Your task to perform on an android device: change your default location settings in chrome Image 0: 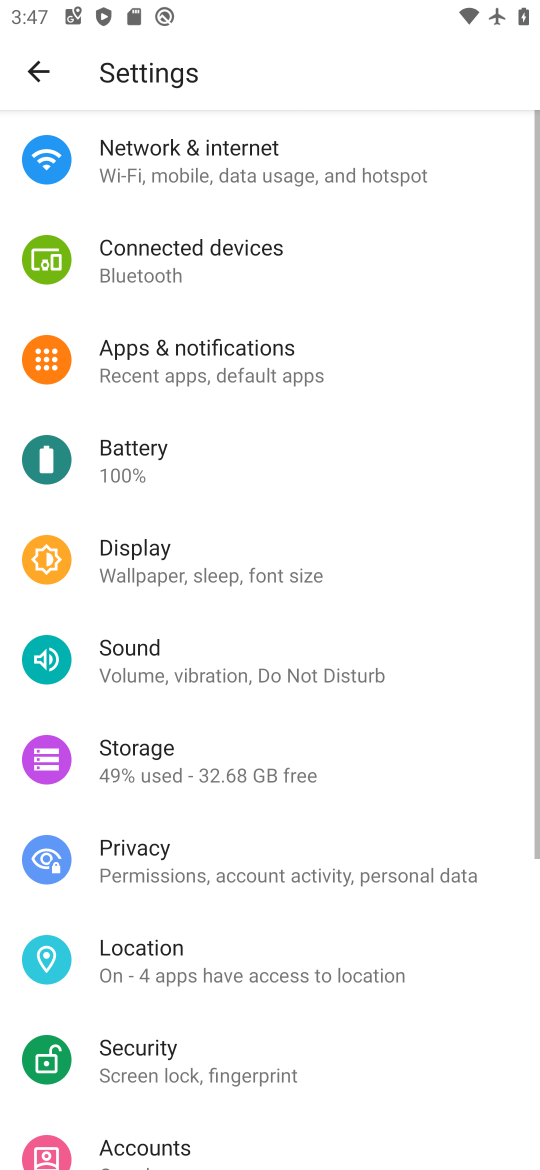
Step 0: press home button
Your task to perform on an android device: change your default location settings in chrome Image 1: 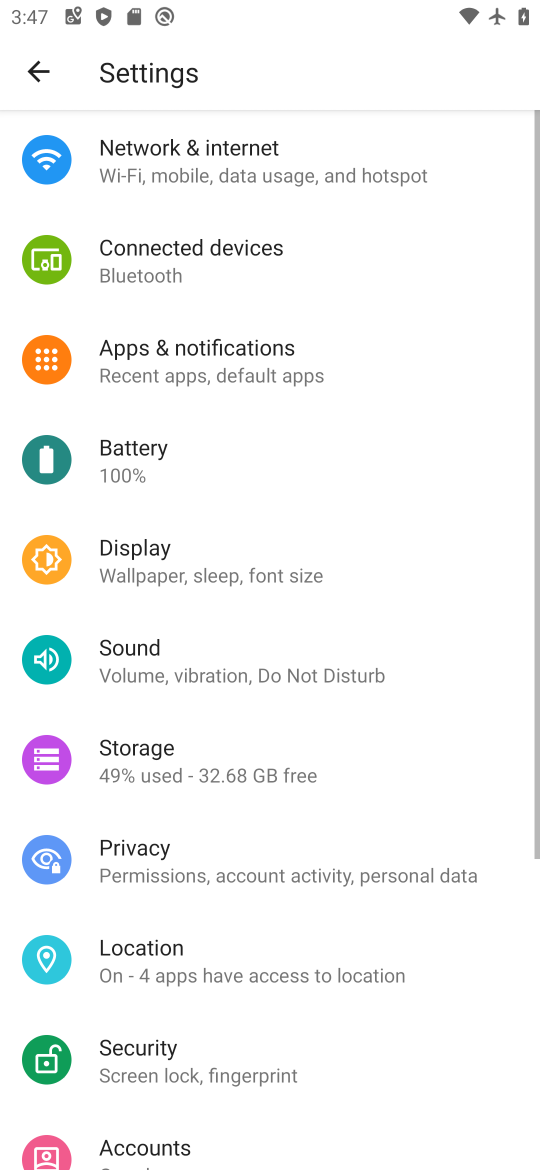
Step 1: press home button
Your task to perform on an android device: change your default location settings in chrome Image 2: 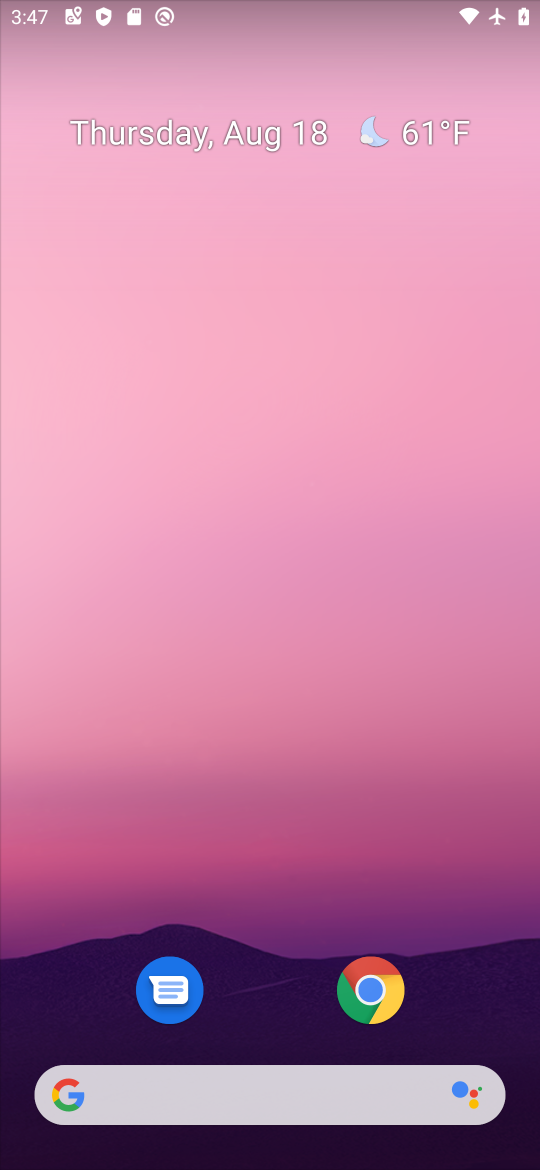
Step 2: drag from (268, 962) to (343, 59)
Your task to perform on an android device: change your default location settings in chrome Image 3: 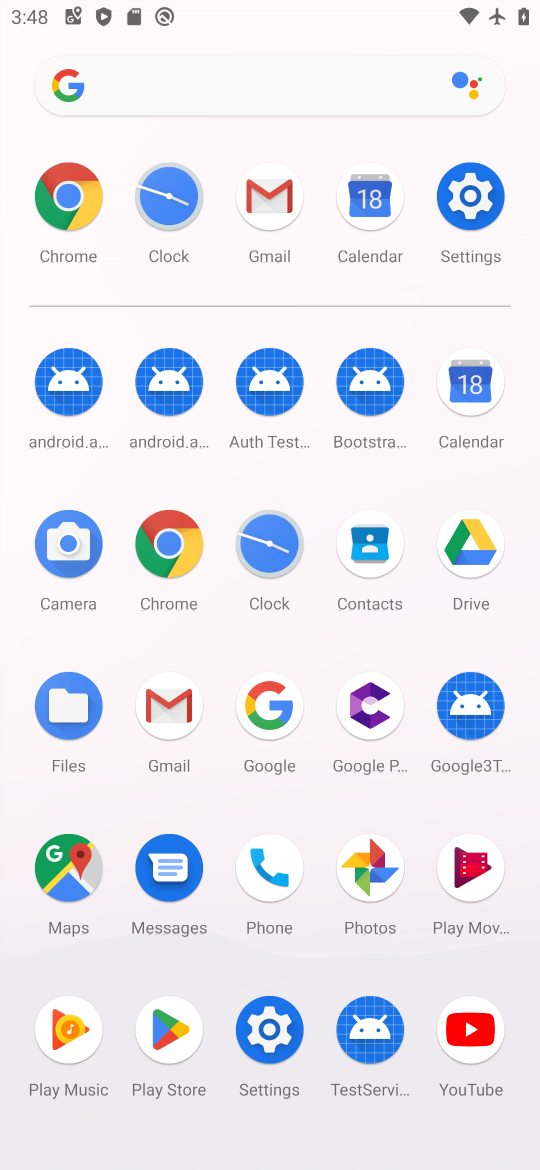
Step 3: click (168, 544)
Your task to perform on an android device: change your default location settings in chrome Image 4: 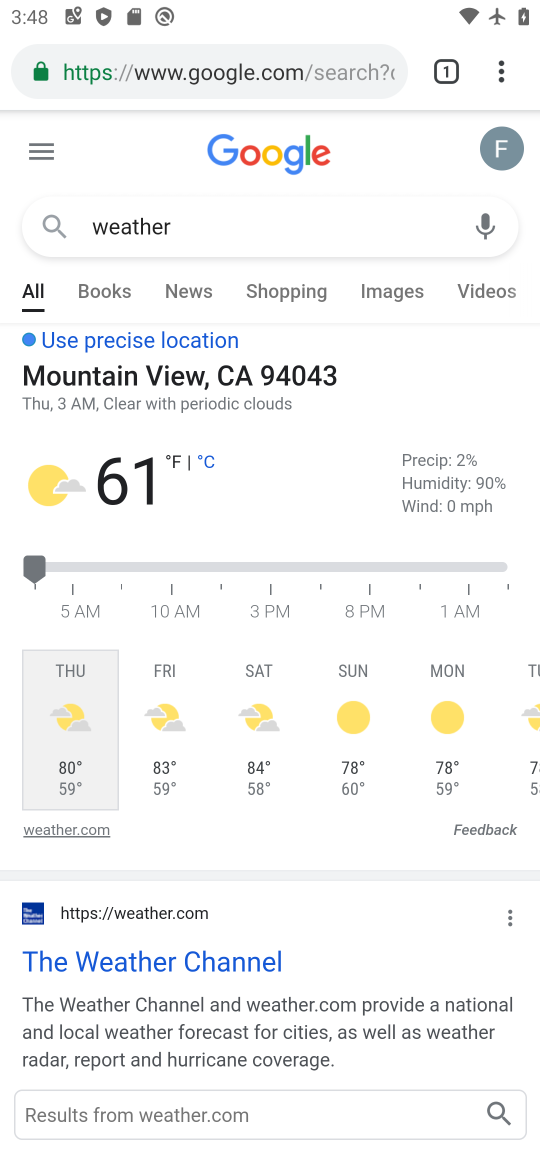
Step 4: drag from (485, 61) to (251, 800)
Your task to perform on an android device: change your default location settings in chrome Image 5: 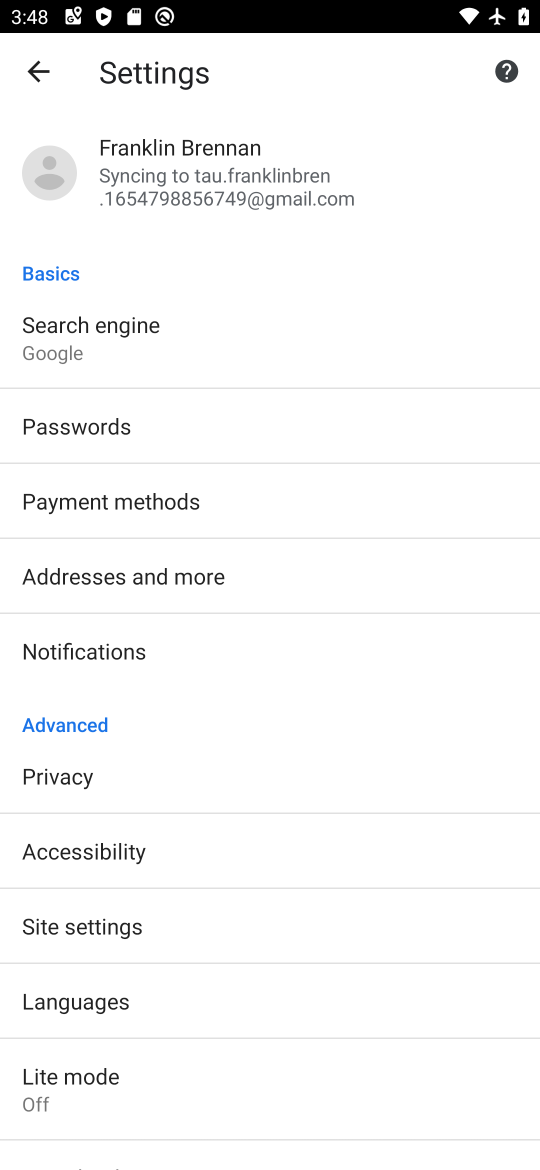
Step 5: click (110, 920)
Your task to perform on an android device: change your default location settings in chrome Image 6: 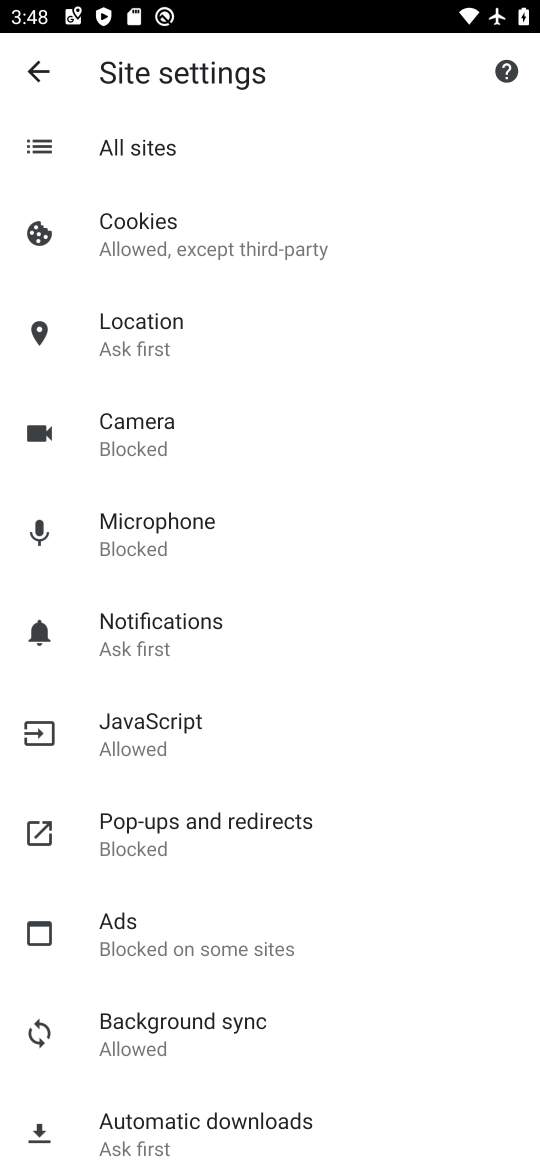
Step 6: click (223, 339)
Your task to perform on an android device: change your default location settings in chrome Image 7: 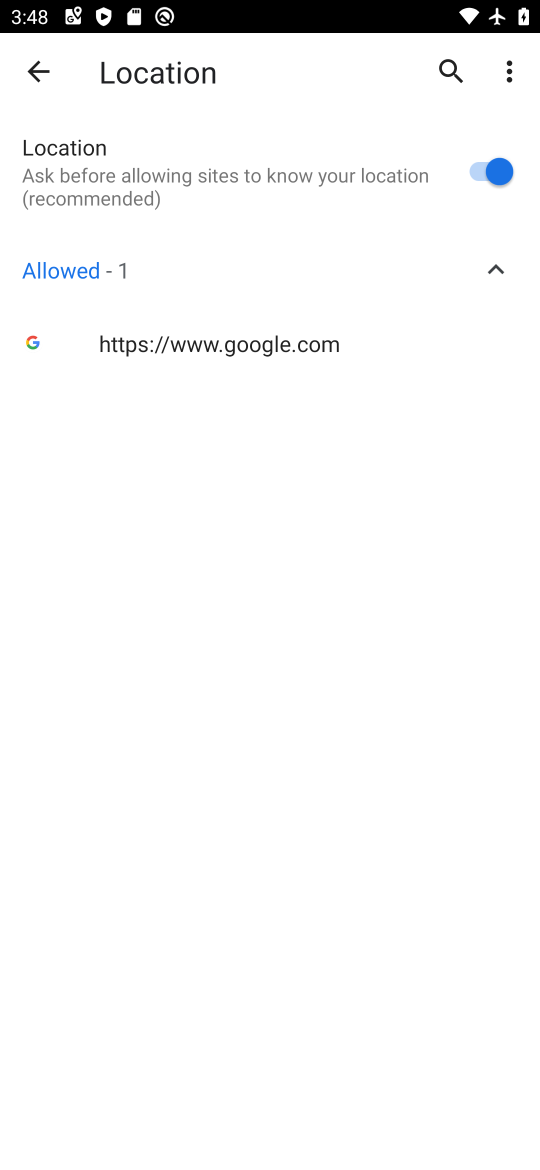
Step 7: click (487, 172)
Your task to perform on an android device: change your default location settings in chrome Image 8: 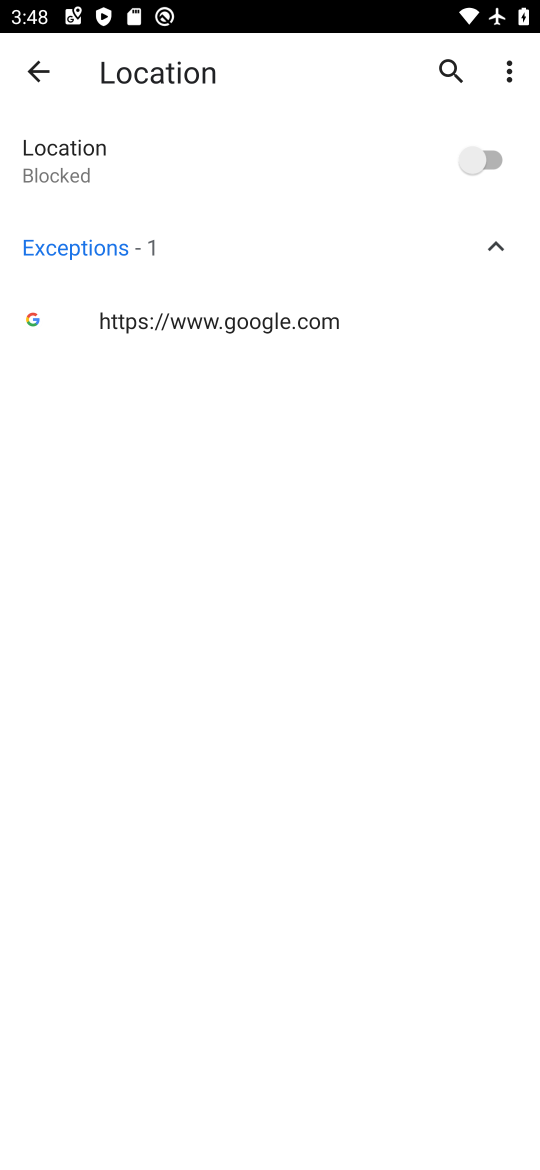
Step 8: task complete